Your task to perform on an android device: see sites visited before in the chrome app Image 0: 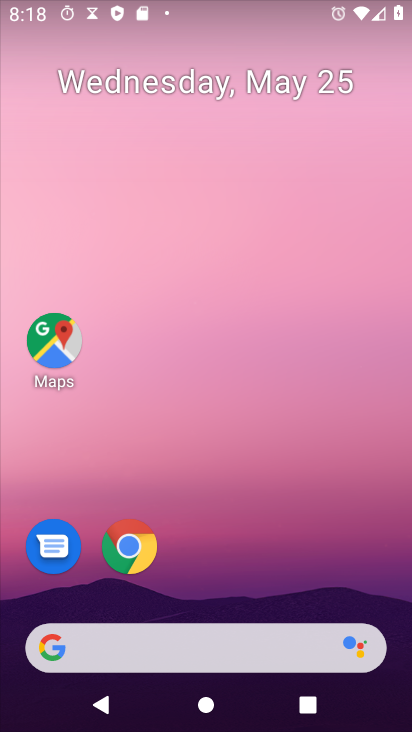
Step 0: click (103, 565)
Your task to perform on an android device: see sites visited before in the chrome app Image 1: 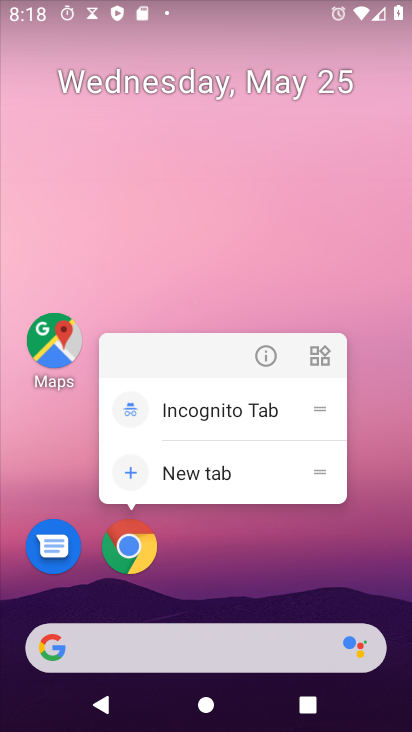
Step 1: click (131, 538)
Your task to perform on an android device: see sites visited before in the chrome app Image 2: 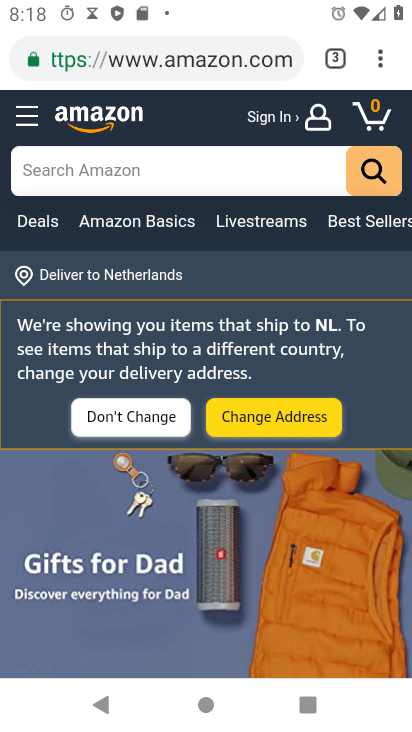
Step 2: click (380, 49)
Your task to perform on an android device: see sites visited before in the chrome app Image 3: 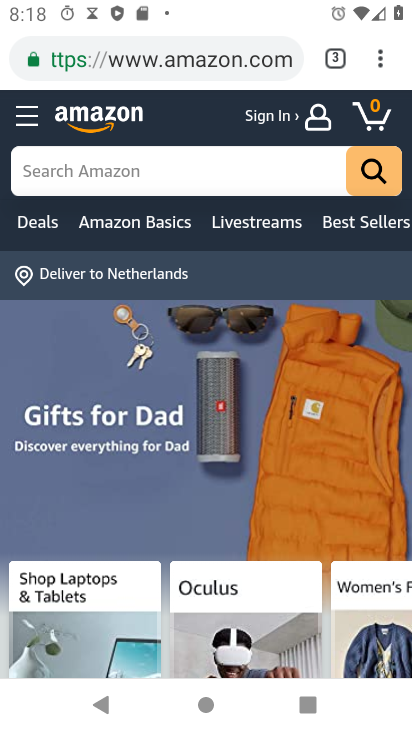
Step 3: click (384, 51)
Your task to perform on an android device: see sites visited before in the chrome app Image 4: 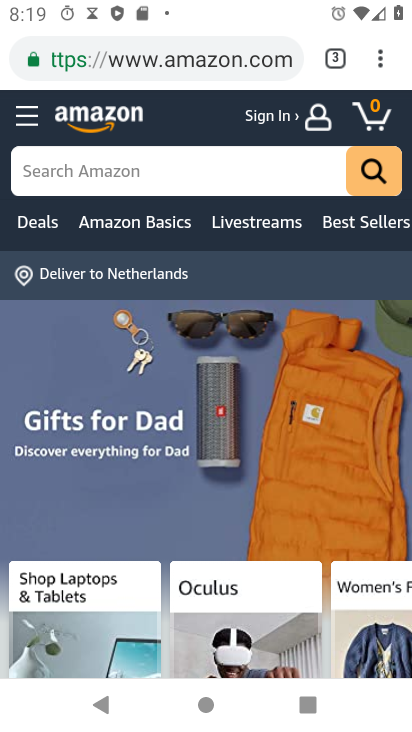
Step 4: click (385, 58)
Your task to perform on an android device: see sites visited before in the chrome app Image 5: 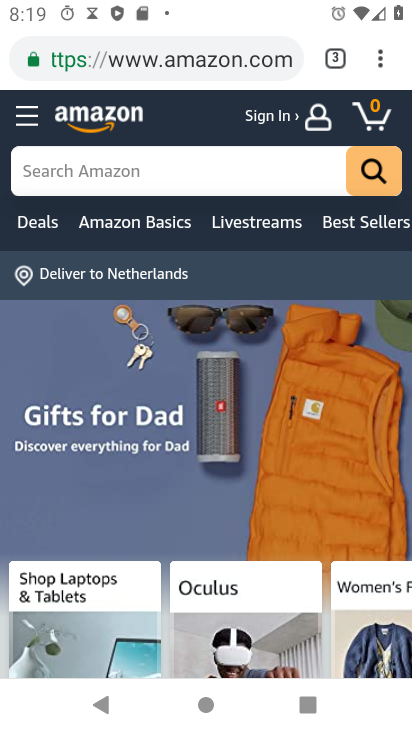
Step 5: drag from (373, 53) to (25, 244)
Your task to perform on an android device: see sites visited before in the chrome app Image 6: 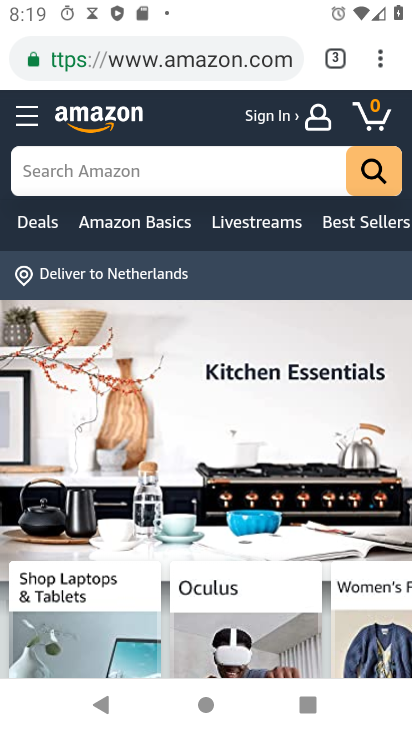
Step 6: click (383, 70)
Your task to perform on an android device: see sites visited before in the chrome app Image 7: 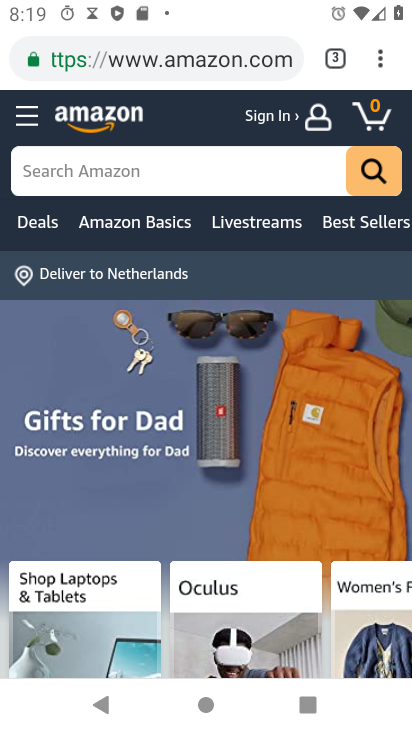
Step 7: click (382, 69)
Your task to perform on an android device: see sites visited before in the chrome app Image 8: 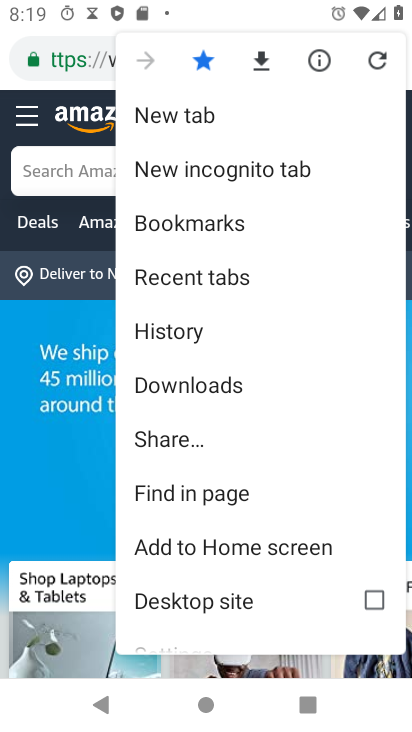
Step 8: click (157, 336)
Your task to perform on an android device: see sites visited before in the chrome app Image 9: 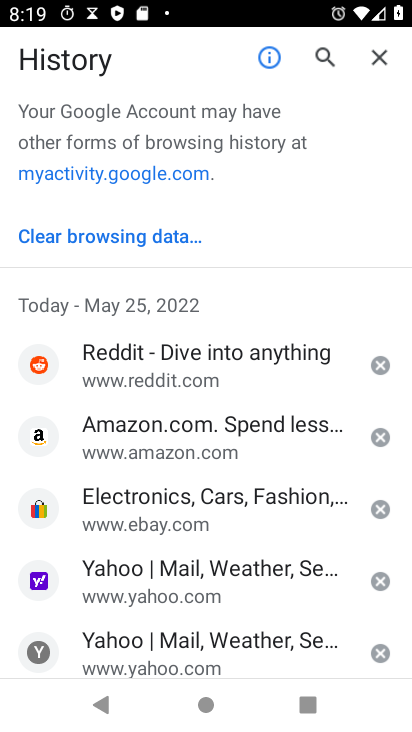
Step 9: task complete